Your task to perform on an android device: open sync settings in chrome Image 0: 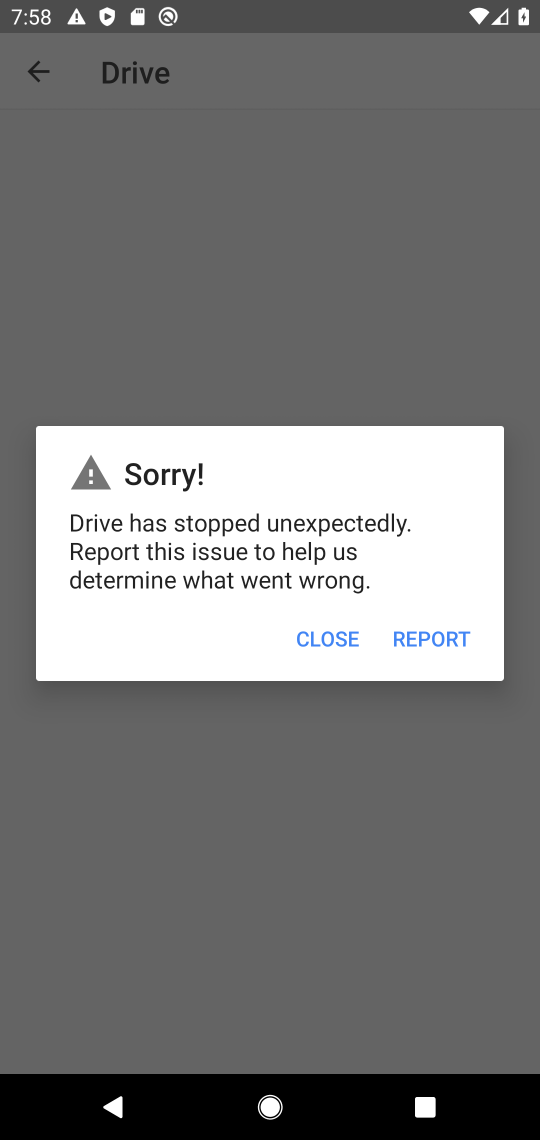
Step 0: press home button
Your task to perform on an android device: open sync settings in chrome Image 1: 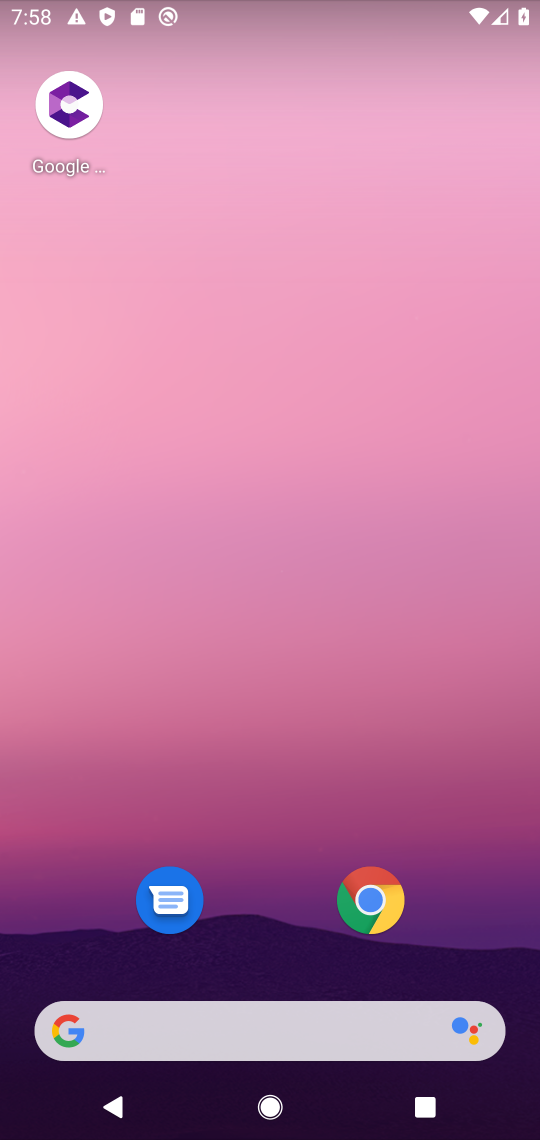
Step 1: drag from (236, 960) to (312, 247)
Your task to perform on an android device: open sync settings in chrome Image 2: 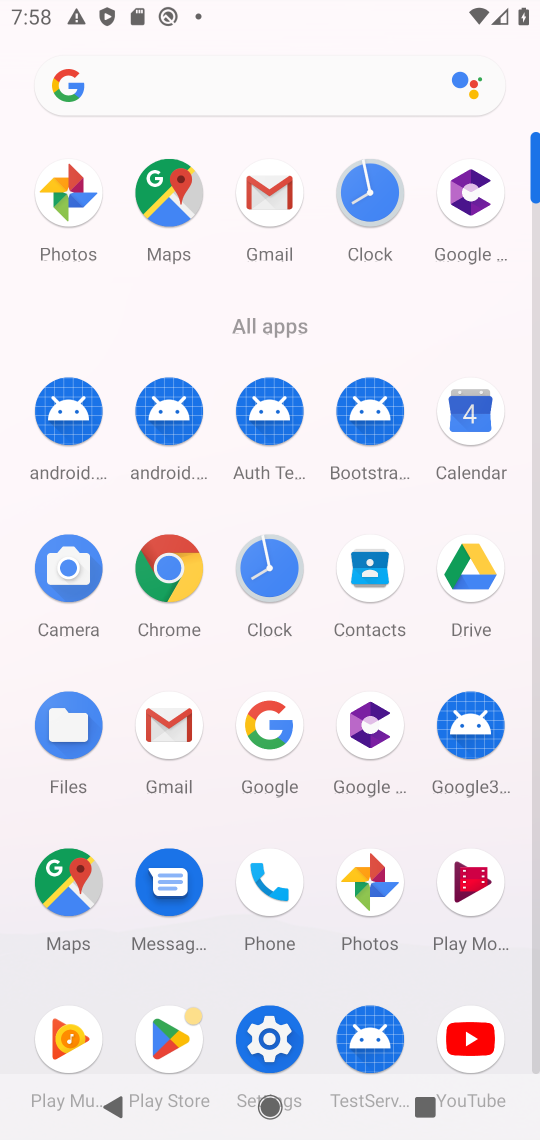
Step 2: click (188, 381)
Your task to perform on an android device: open sync settings in chrome Image 3: 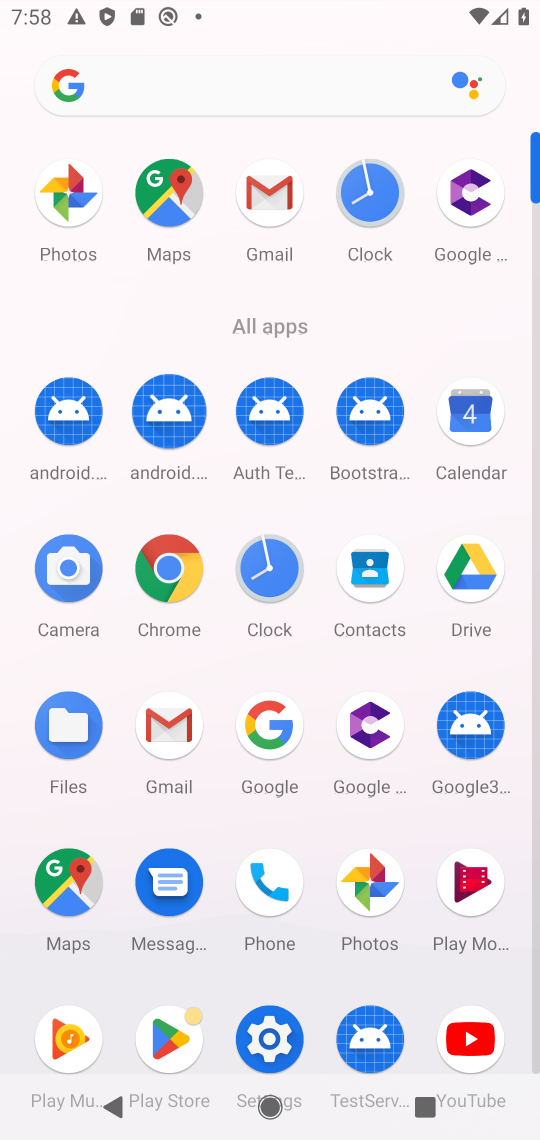
Step 3: click (162, 595)
Your task to perform on an android device: open sync settings in chrome Image 4: 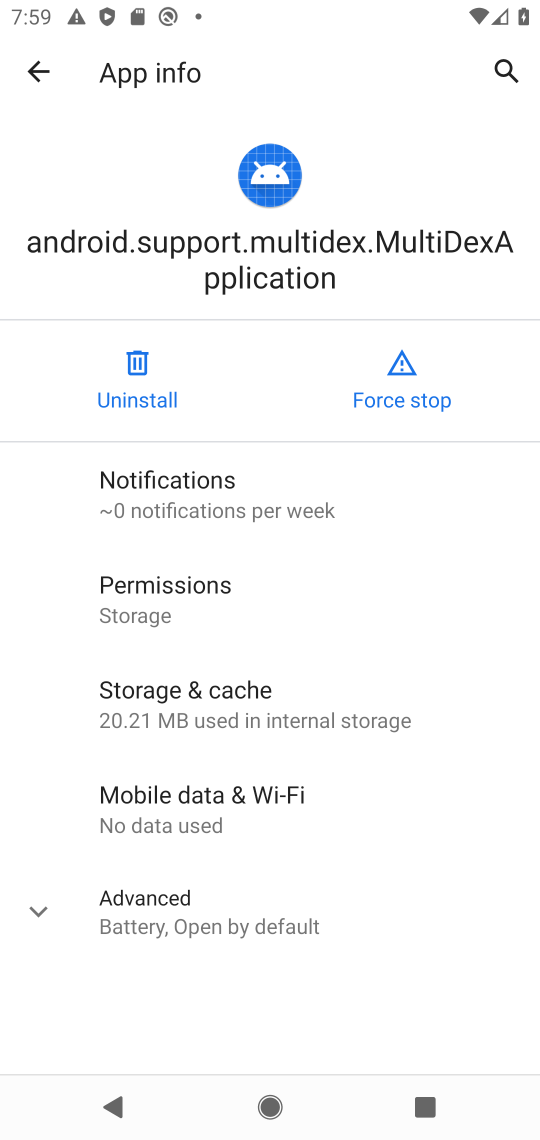
Step 4: click (38, 65)
Your task to perform on an android device: open sync settings in chrome Image 5: 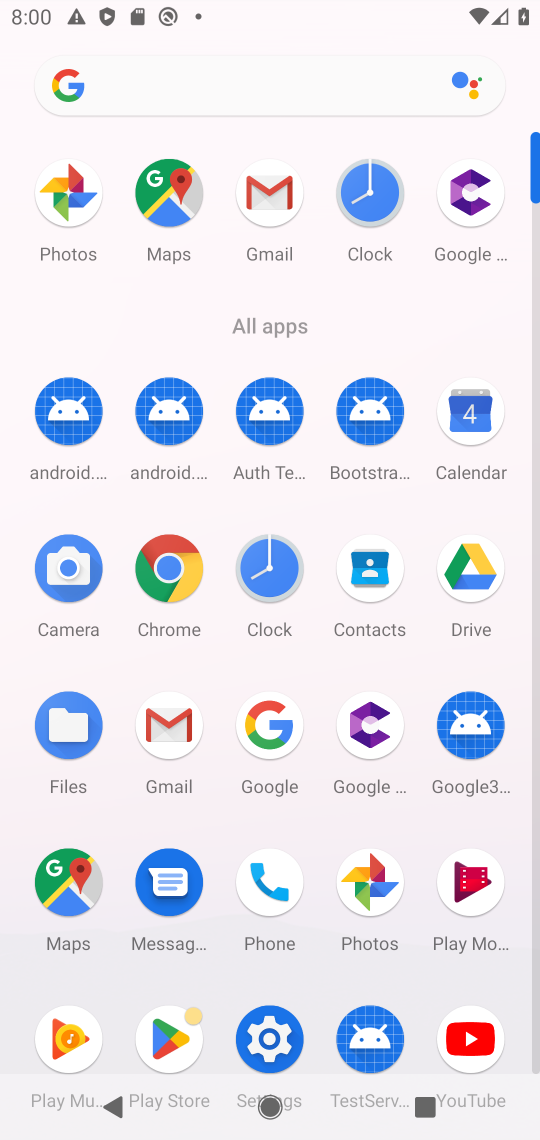
Step 5: click (177, 623)
Your task to perform on an android device: open sync settings in chrome Image 6: 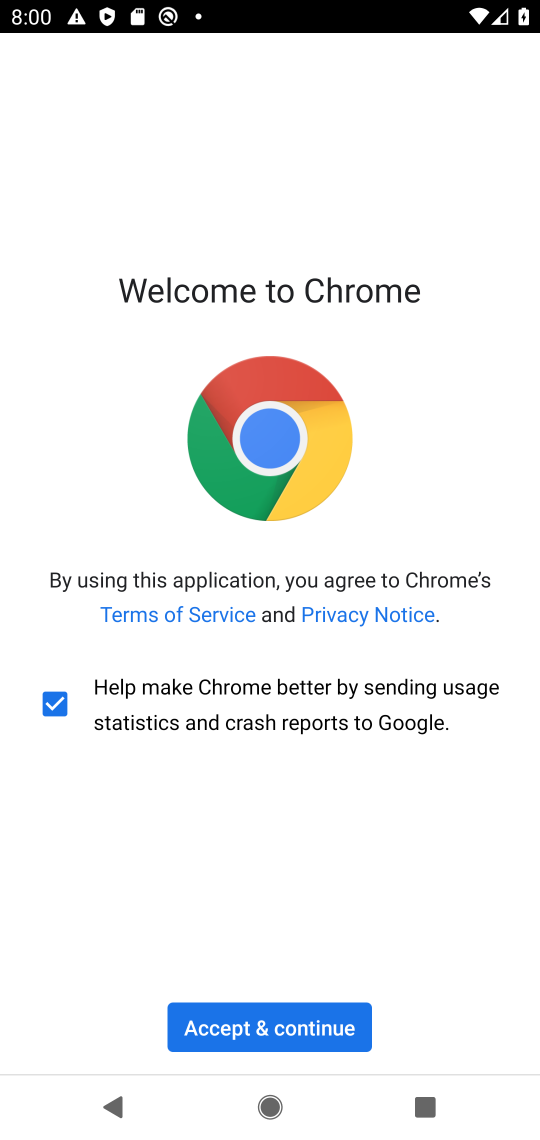
Step 6: click (328, 1015)
Your task to perform on an android device: open sync settings in chrome Image 7: 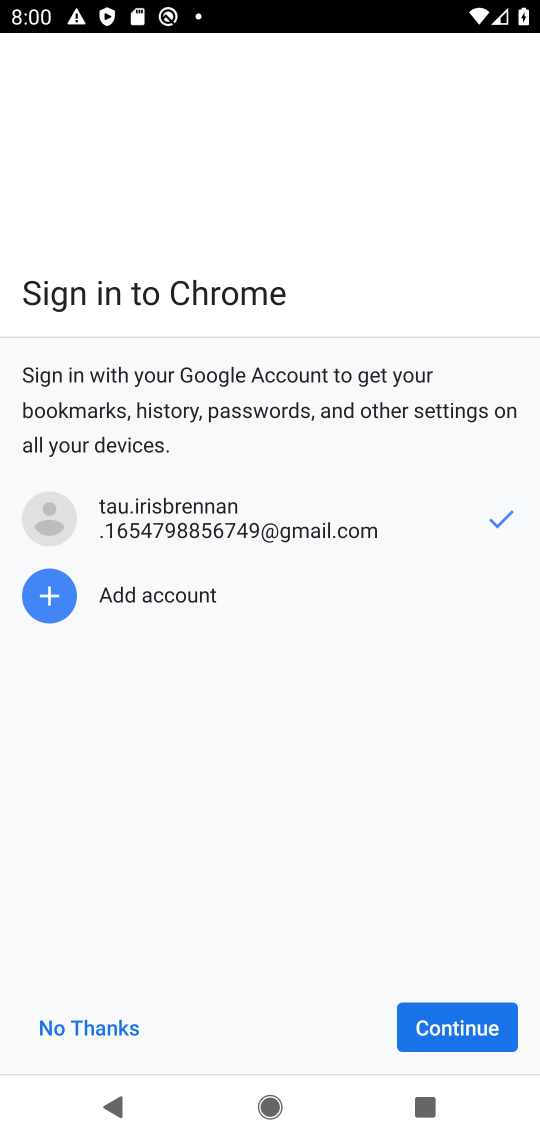
Step 7: click (456, 1035)
Your task to perform on an android device: open sync settings in chrome Image 8: 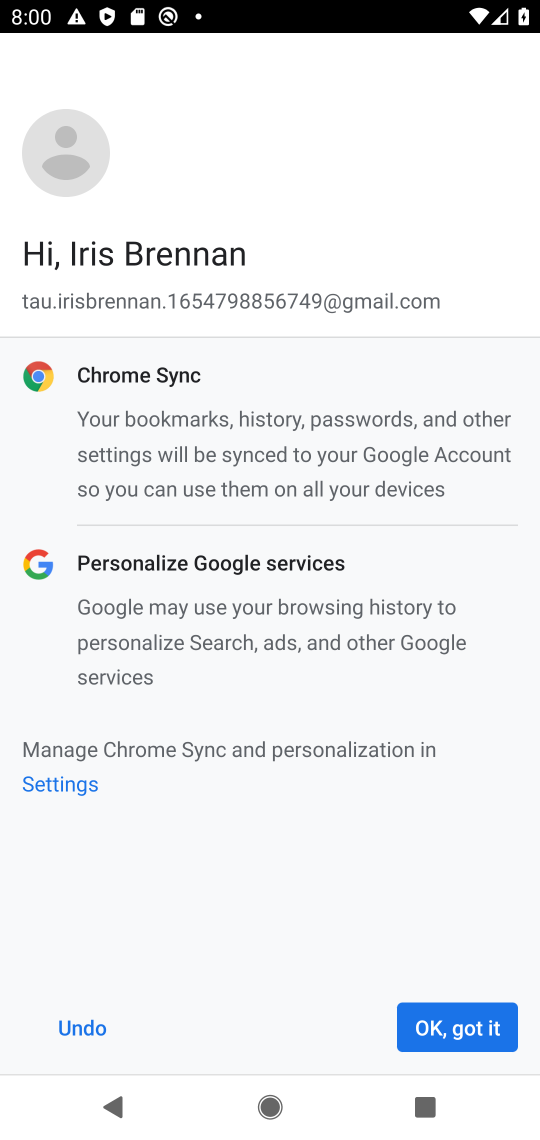
Step 8: click (456, 1035)
Your task to perform on an android device: open sync settings in chrome Image 9: 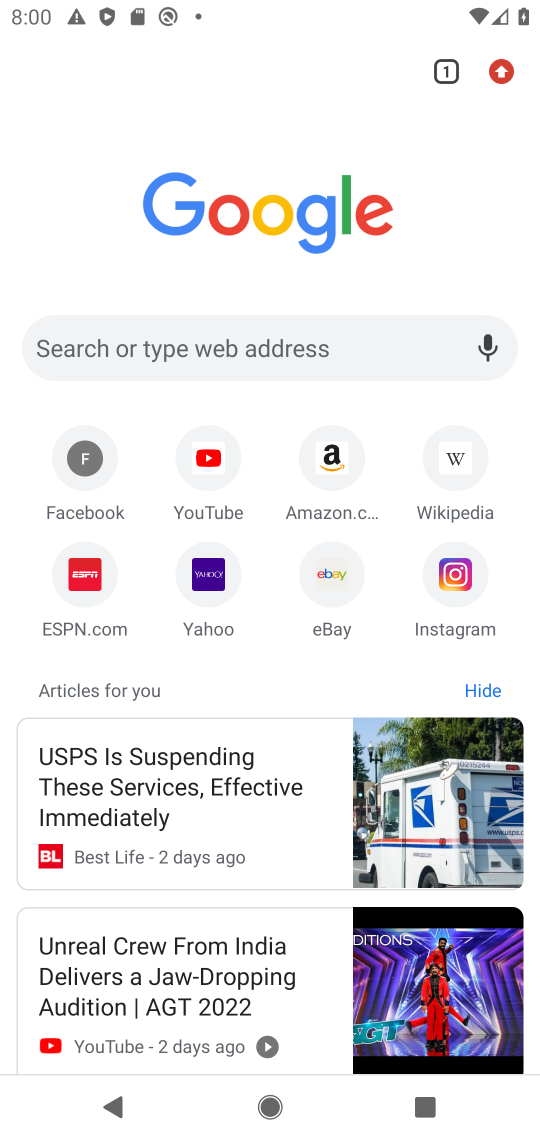
Step 9: click (504, 74)
Your task to perform on an android device: open sync settings in chrome Image 10: 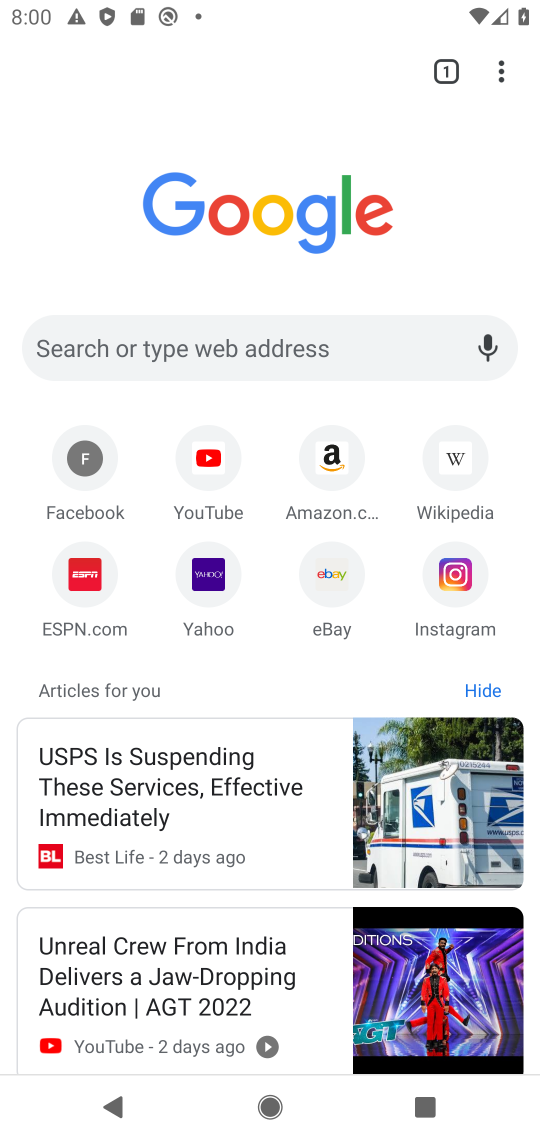
Step 10: click (504, 74)
Your task to perform on an android device: open sync settings in chrome Image 11: 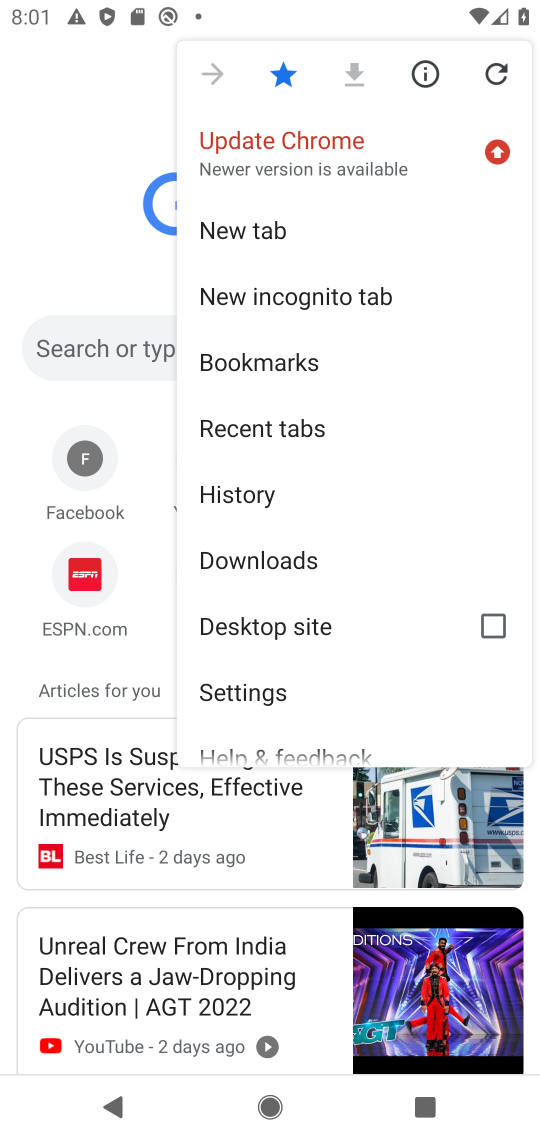
Step 11: click (260, 691)
Your task to perform on an android device: open sync settings in chrome Image 12: 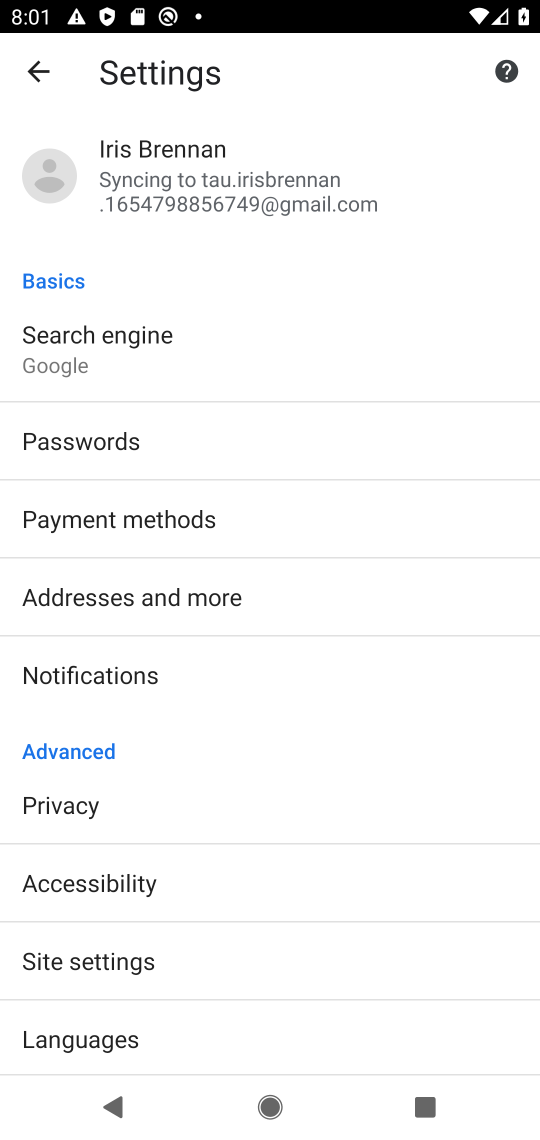
Step 12: click (153, 163)
Your task to perform on an android device: open sync settings in chrome Image 13: 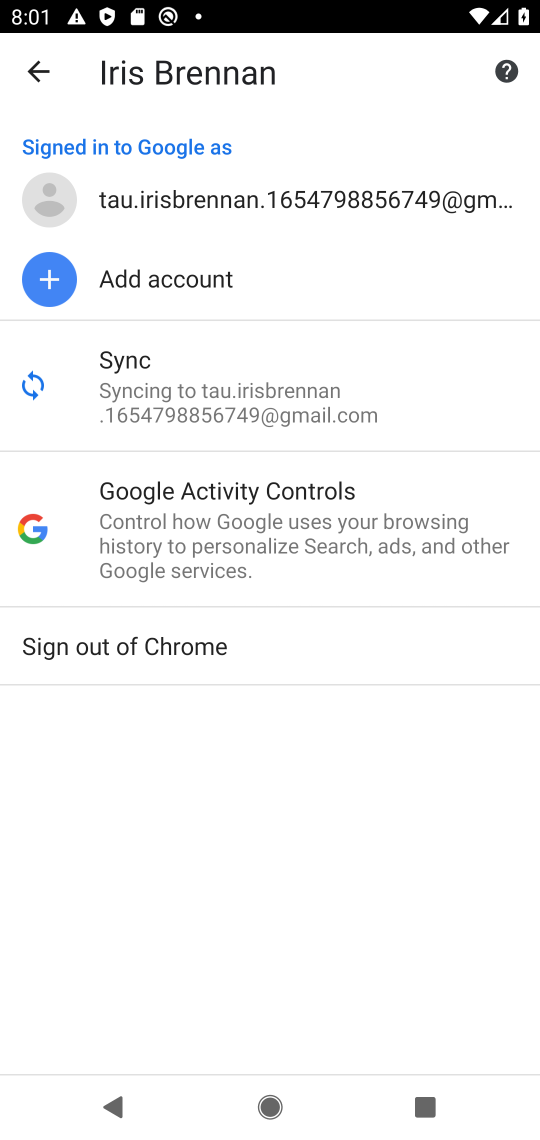
Step 13: click (166, 408)
Your task to perform on an android device: open sync settings in chrome Image 14: 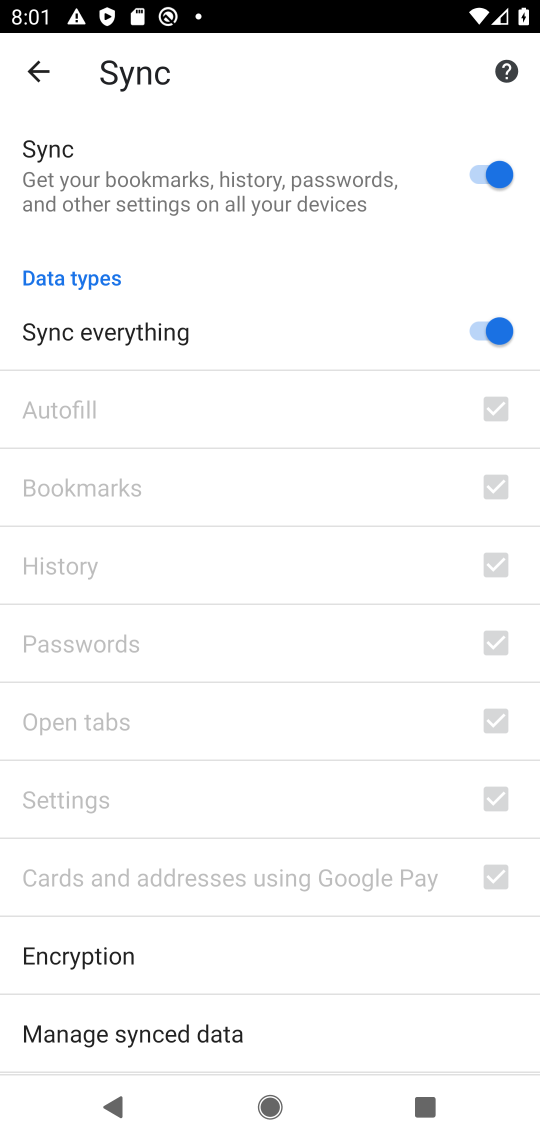
Step 14: task complete